Your task to perform on an android device: What is the news today? Image 0: 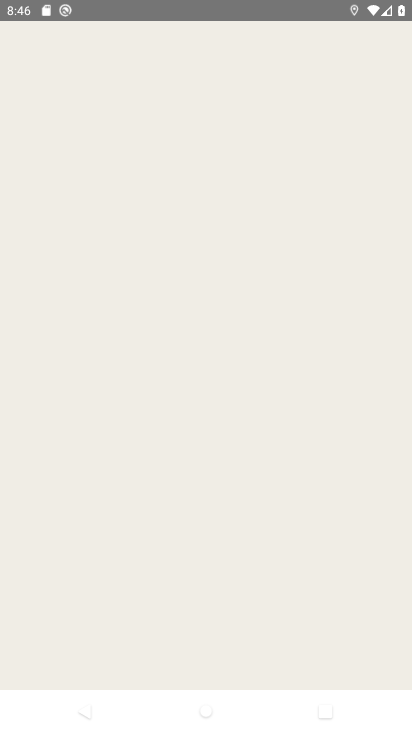
Step 0: press home button
Your task to perform on an android device: What is the news today? Image 1: 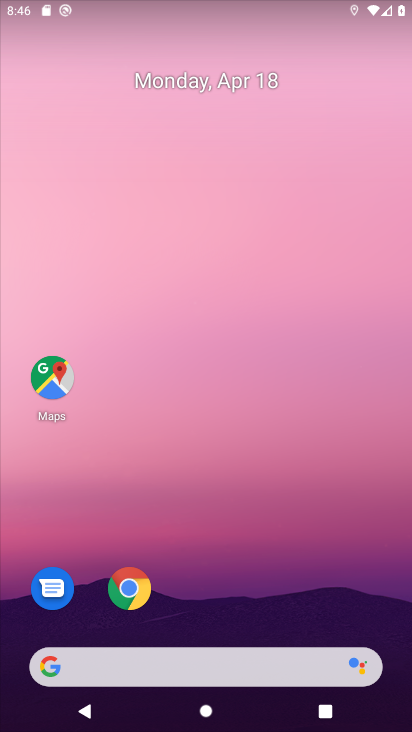
Step 1: drag from (295, 538) to (289, 48)
Your task to perform on an android device: What is the news today? Image 2: 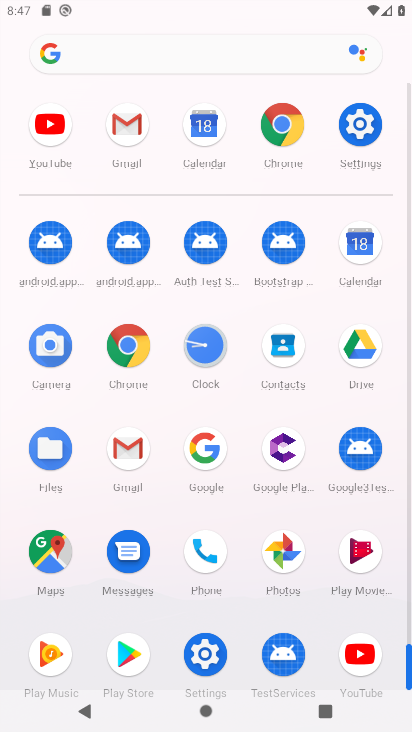
Step 2: click (282, 149)
Your task to perform on an android device: What is the news today? Image 3: 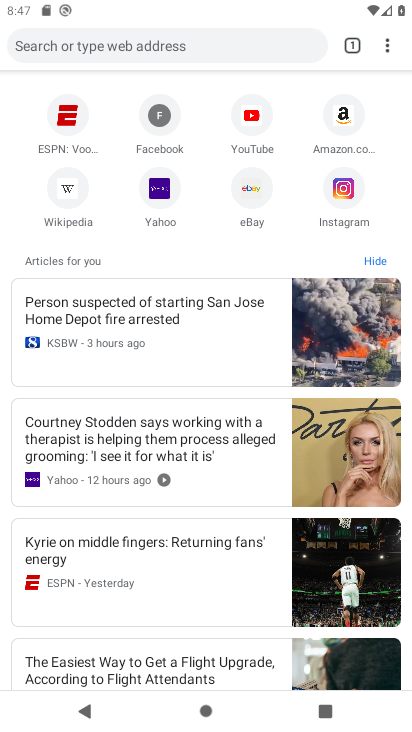
Step 3: click (102, 318)
Your task to perform on an android device: What is the news today? Image 4: 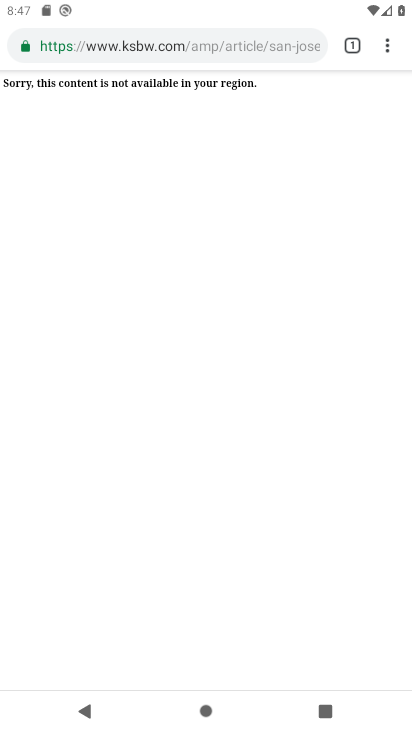
Step 4: press back button
Your task to perform on an android device: What is the news today? Image 5: 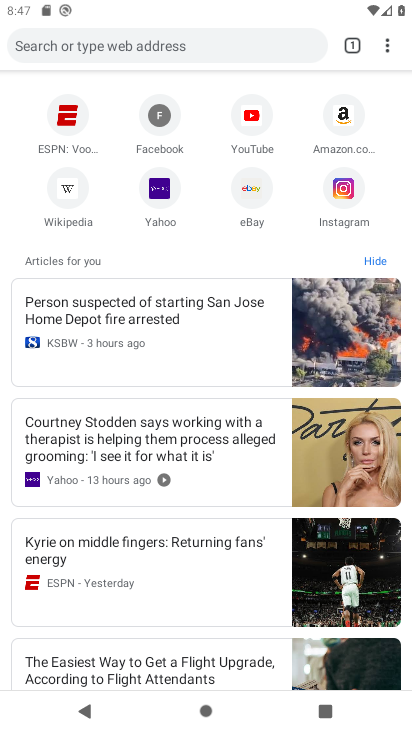
Step 5: click (214, 334)
Your task to perform on an android device: What is the news today? Image 6: 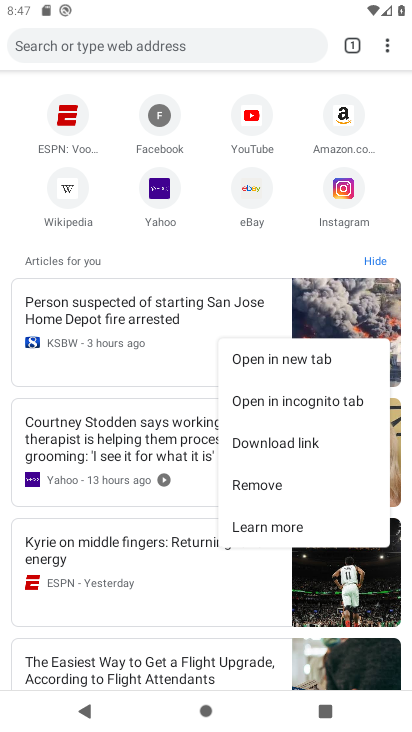
Step 6: click (198, 334)
Your task to perform on an android device: What is the news today? Image 7: 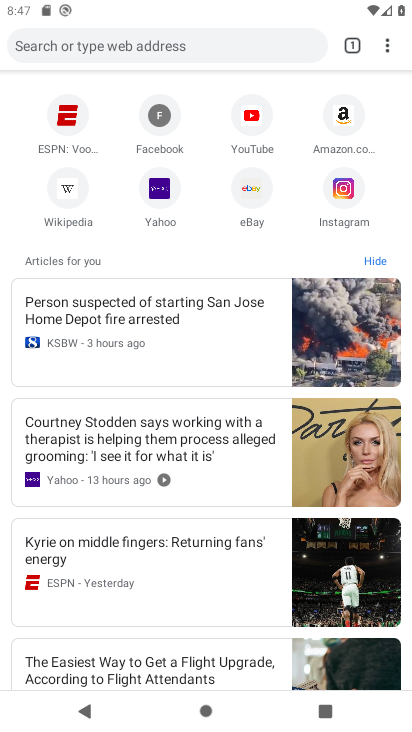
Step 7: click (198, 334)
Your task to perform on an android device: What is the news today? Image 8: 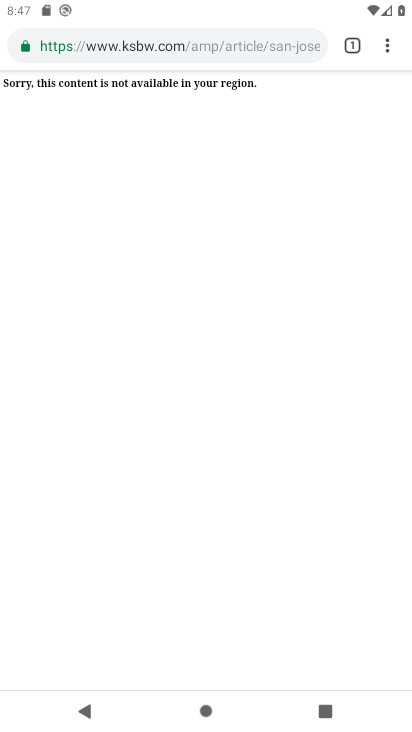
Step 8: task complete